Your task to perform on an android device: Open Yahoo.com Image 0: 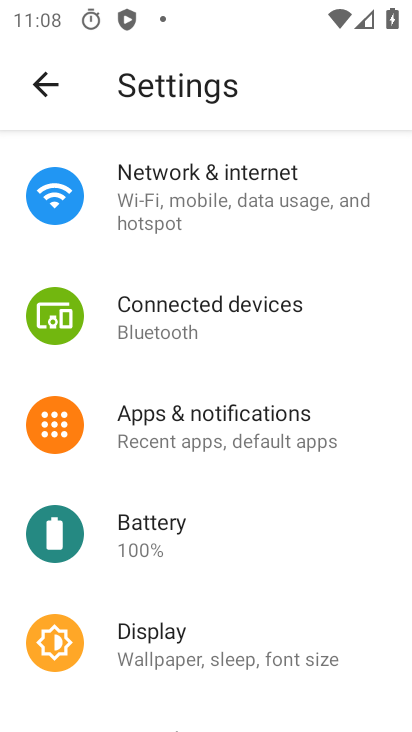
Step 0: press home button
Your task to perform on an android device: Open Yahoo.com Image 1: 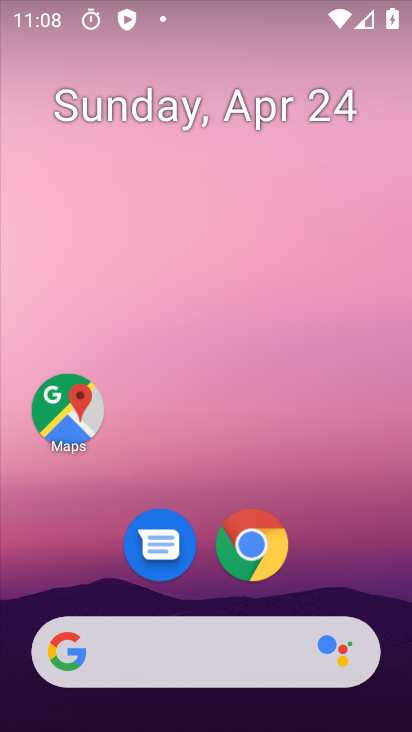
Step 1: drag from (291, 691) to (280, 207)
Your task to perform on an android device: Open Yahoo.com Image 2: 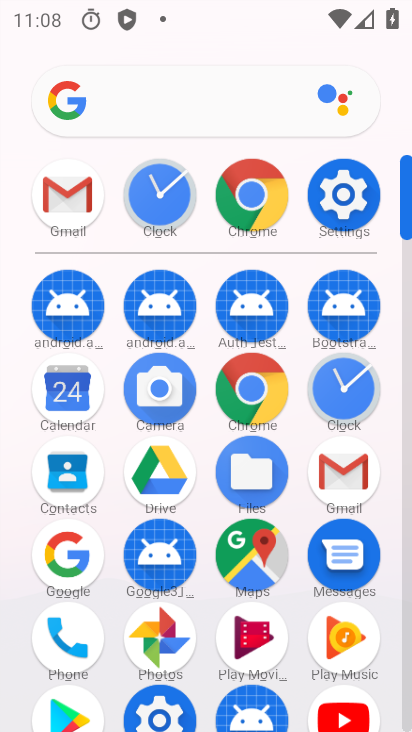
Step 2: click (266, 209)
Your task to perform on an android device: Open Yahoo.com Image 3: 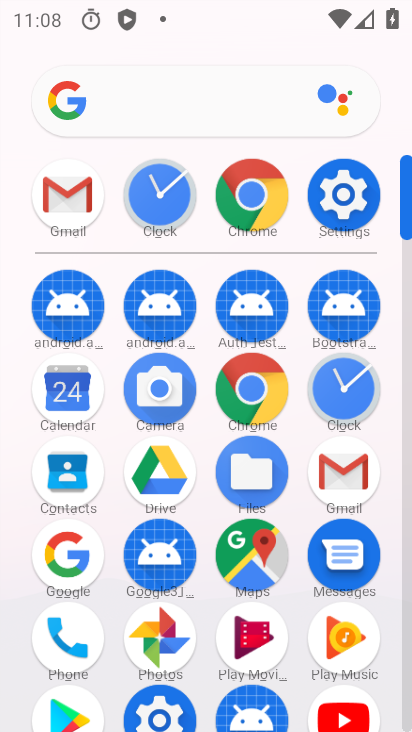
Step 3: click (248, 188)
Your task to perform on an android device: Open Yahoo.com Image 4: 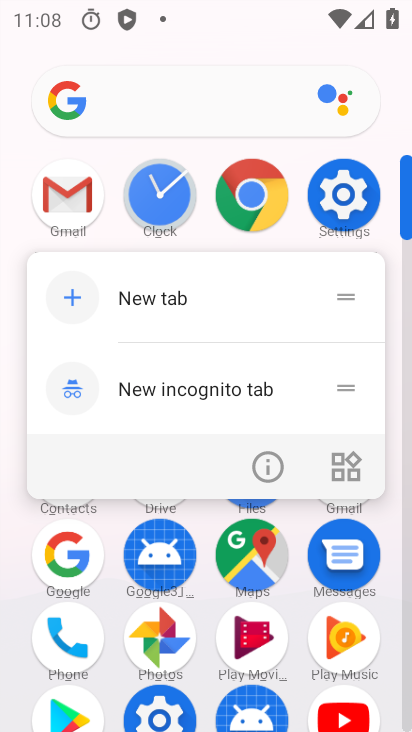
Step 4: click (246, 181)
Your task to perform on an android device: Open Yahoo.com Image 5: 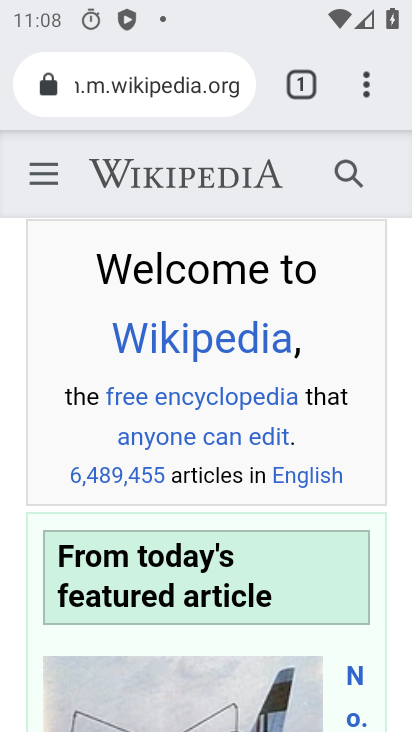
Step 5: click (131, 101)
Your task to perform on an android device: Open Yahoo.com Image 6: 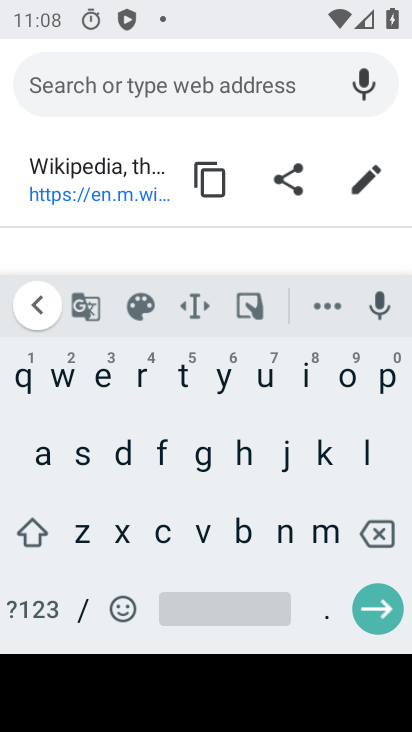
Step 6: click (222, 392)
Your task to perform on an android device: Open Yahoo.com Image 7: 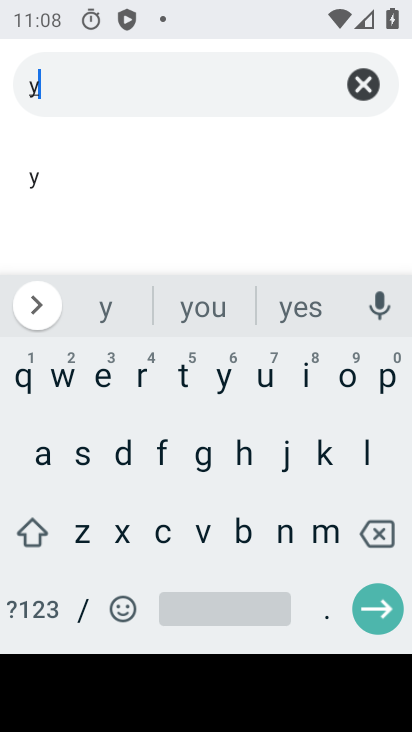
Step 7: click (42, 454)
Your task to perform on an android device: Open Yahoo.com Image 8: 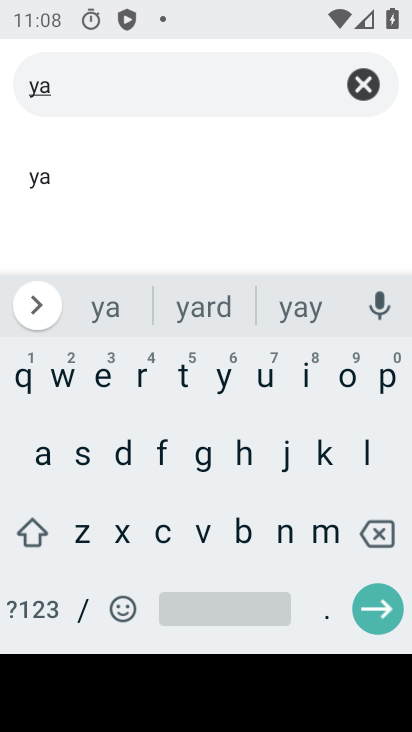
Step 8: click (243, 460)
Your task to perform on an android device: Open Yahoo.com Image 9: 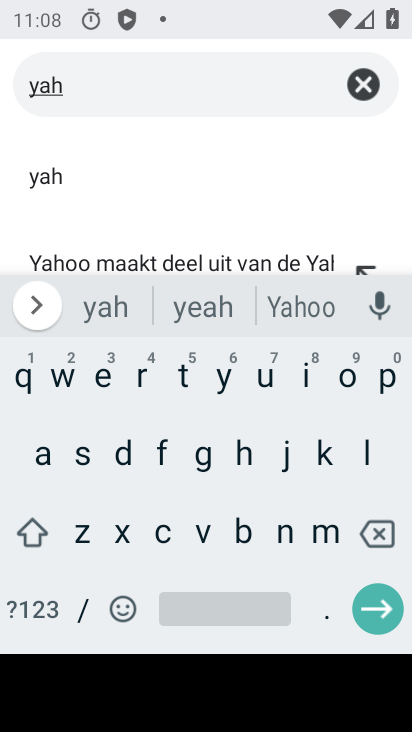
Step 9: click (295, 311)
Your task to perform on an android device: Open Yahoo.com Image 10: 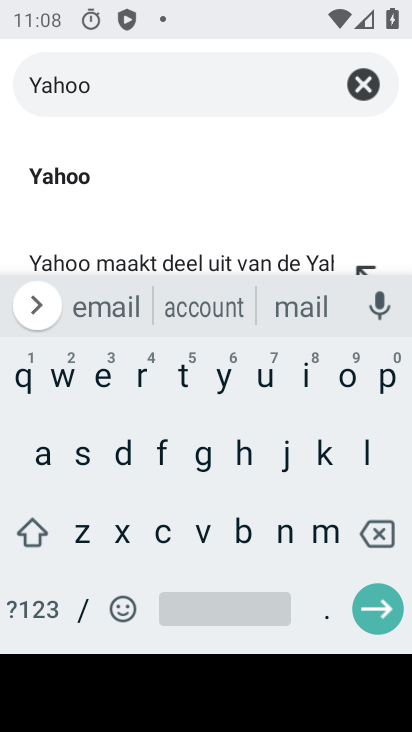
Step 10: click (377, 604)
Your task to perform on an android device: Open Yahoo.com Image 11: 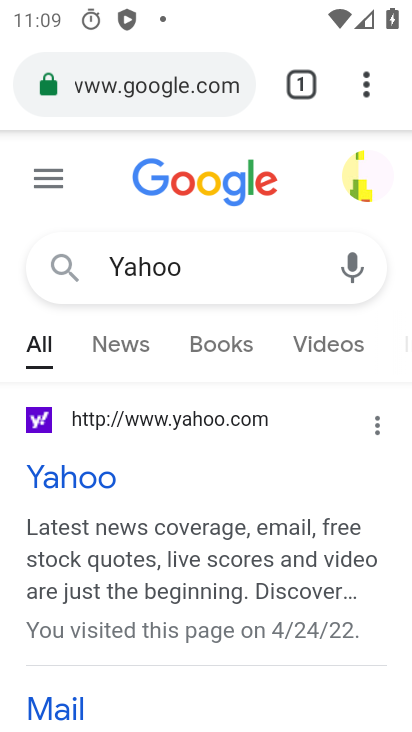
Step 11: click (51, 463)
Your task to perform on an android device: Open Yahoo.com Image 12: 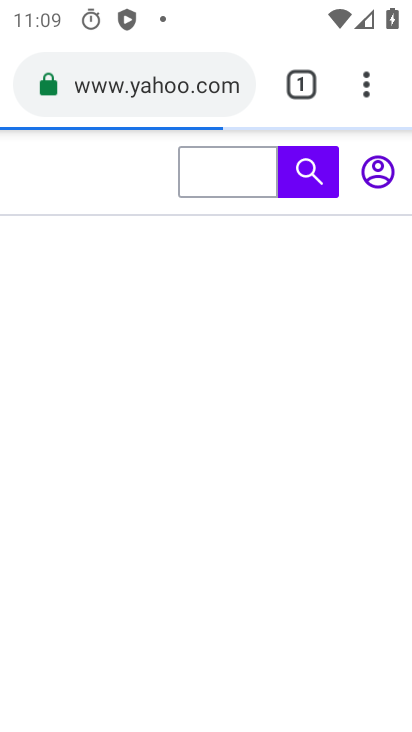
Step 12: task complete